Your task to perform on an android device: stop showing notifications on the lock screen Image 0: 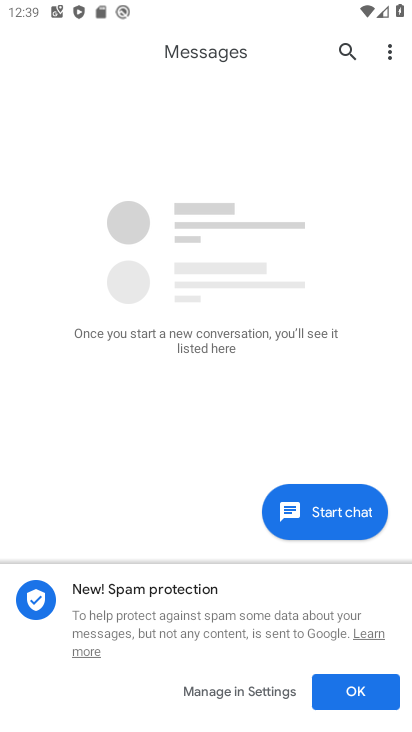
Step 0: press home button
Your task to perform on an android device: stop showing notifications on the lock screen Image 1: 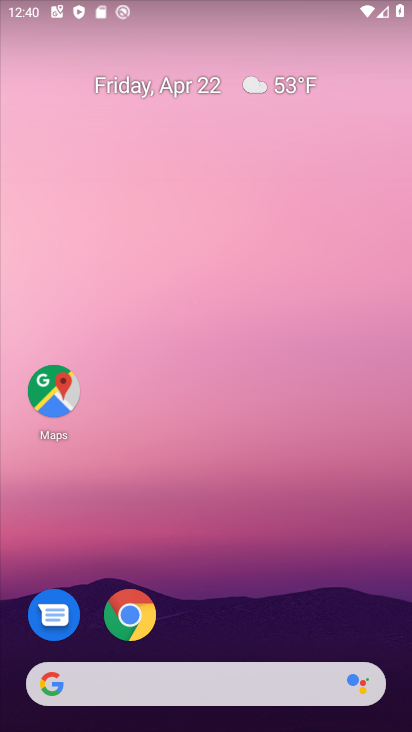
Step 1: drag from (301, 590) to (270, 0)
Your task to perform on an android device: stop showing notifications on the lock screen Image 2: 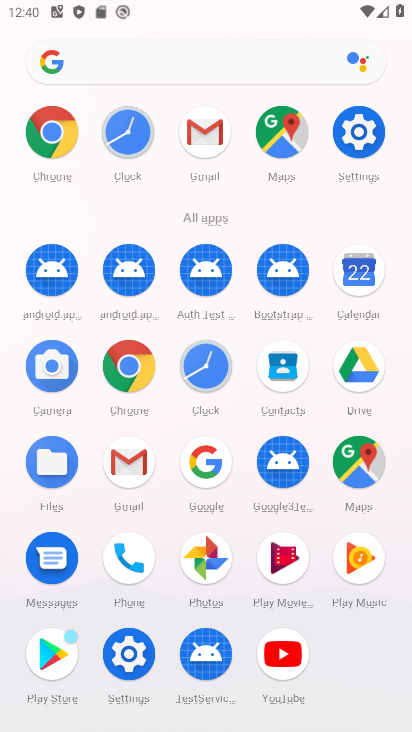
Step 2: click (357, 153)
Your task to perform on an android device: stop showing notifications on the lock screen Image 3: 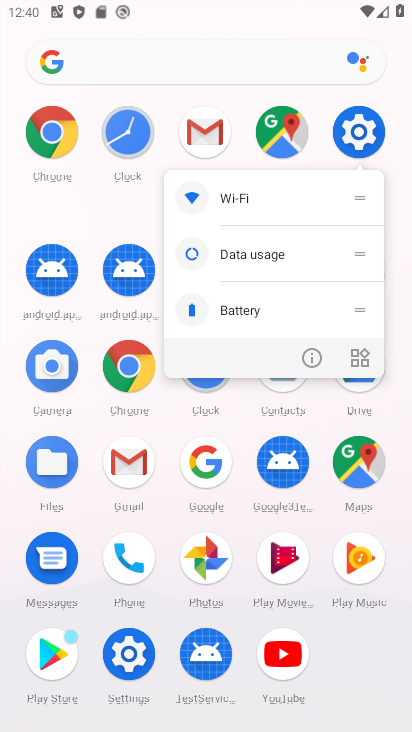
Step 3: click (356, 145)
Your task to perform on an android device: stop showing notifications on the lock screen Image 4: 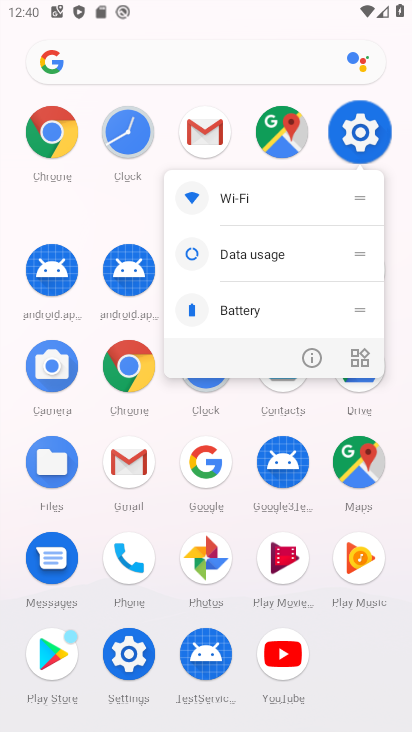
Step 4: click (356, 145)
Your task to perform on an android device: stop showing notifications on the lock screen Image 5: 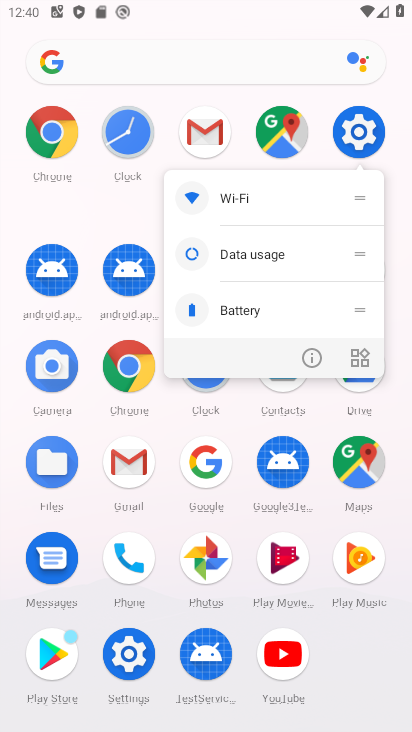
Step 5: click (356, 145)
Your task to perform on an android device: stop showing notifications on the lock screen Image 6: 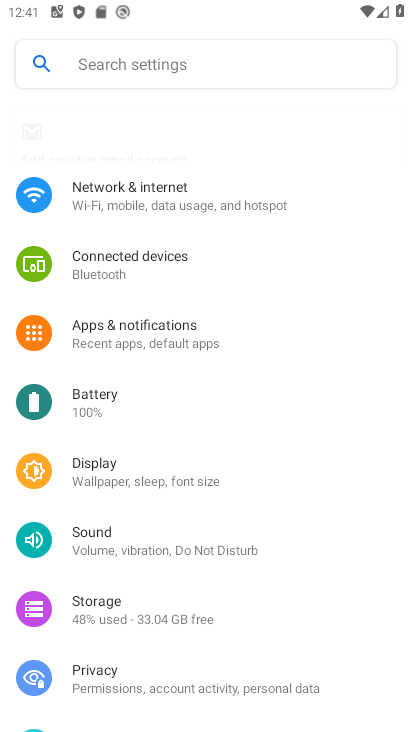
Step 6: click (357, 135)
Your task to perform on an android device: stop showing notifications on the lock screen Image 7: 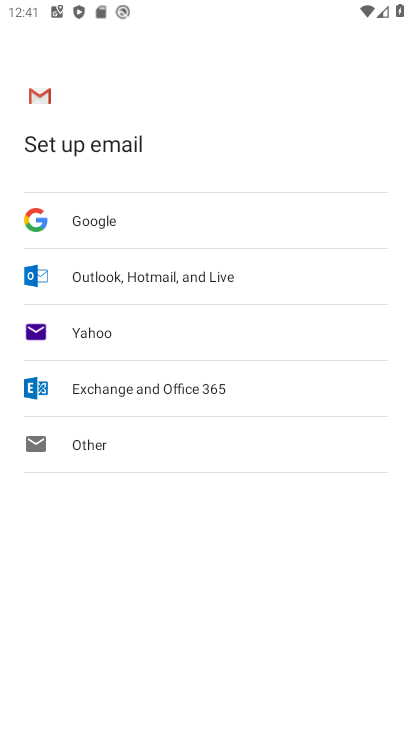
Step 7: press back button
Your task to perform on an android device: stop showing notifications on the lock screen Image 8: 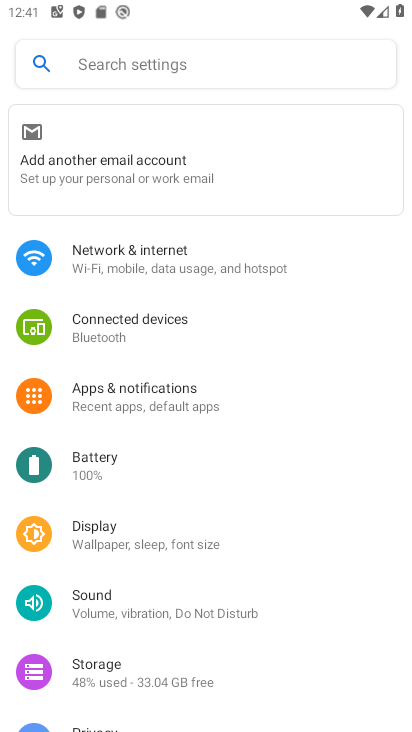
Step 8: click (196, 400)
Your task to perform on an android device: stop showing notifications on the lock screen Image 9: 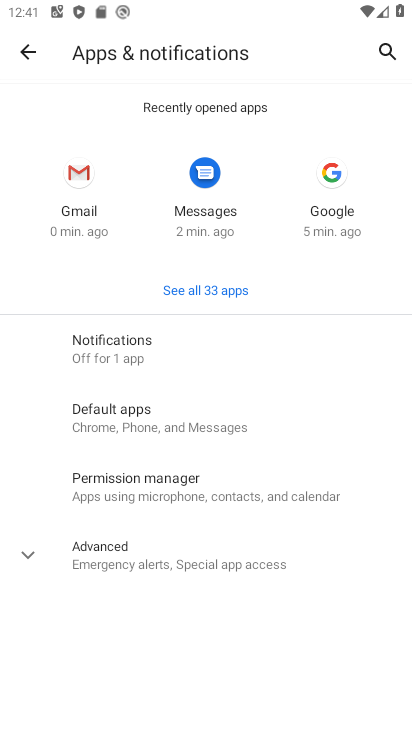
Step 9: click (179, 355)
Your task to perform on an android device: stop showing notifications on the lock screen Image 10: 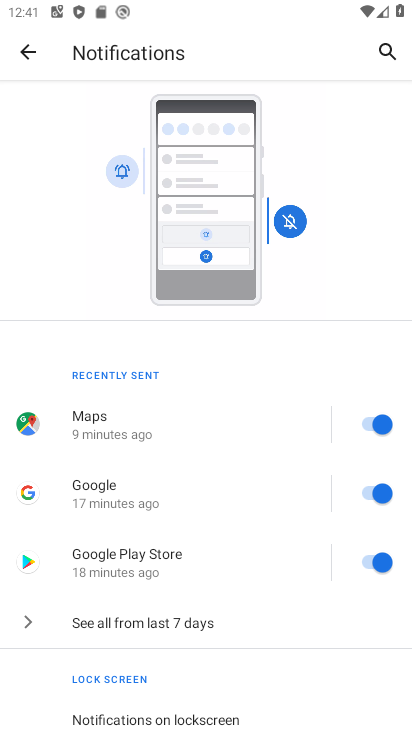
Step 10: click (248, 718)
Your task to perform on an android device: stop showing notifications on the lock screen Image 11: 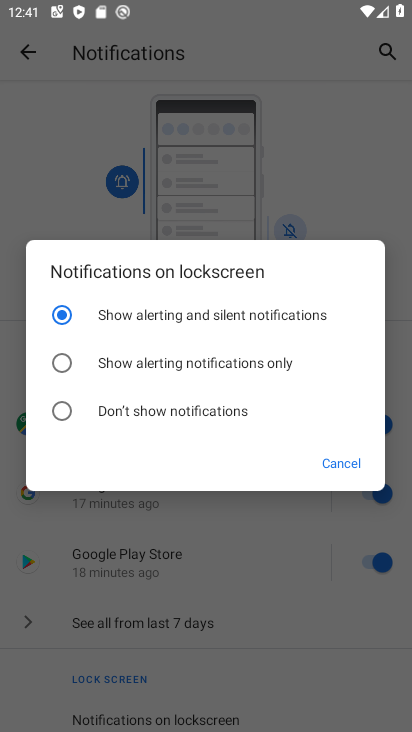
Step 11: click (181, 408)
Your task to perform on an android device: stop showing notifications on the lock screen Image 12: 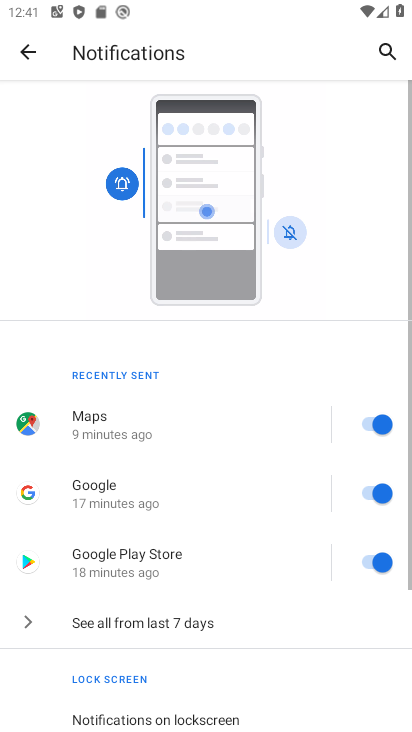
Step 12: task complete